Your task to perform on an android device: Open my contact list Image 0: 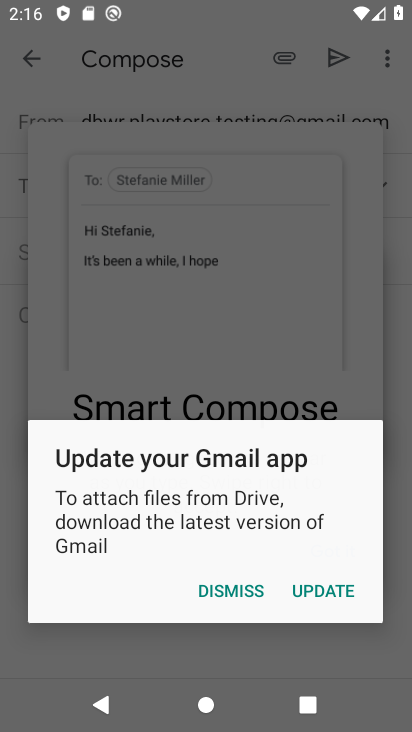
Step 0: click (358, 553)
Your task to perform on an android device: Open my contact list Image 1: 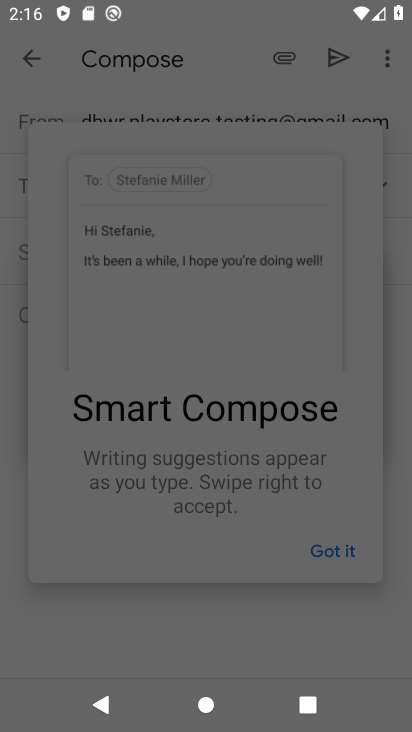
Step 1: press home button
Your task to perform on an android device: Open my contact list Image 2: 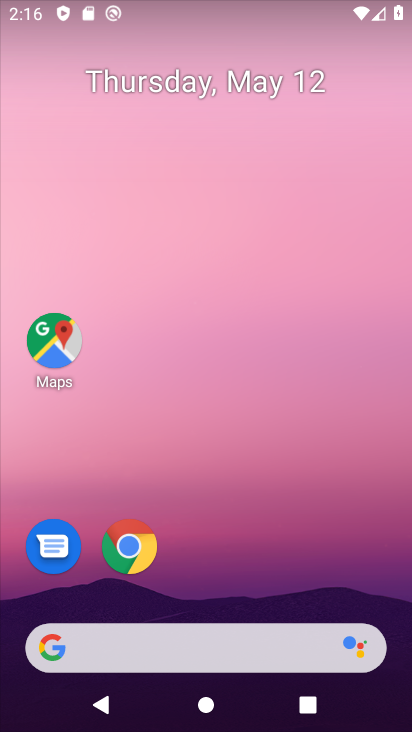
Step 2: drag from (220, 608) to (317, 93)
Your task to perform on an android device: Open my contact list Image 3: 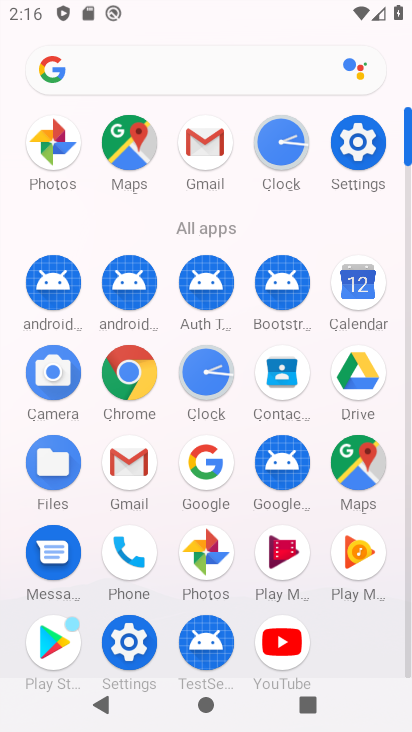
Step 3: click (283, 377)
Your task to perform on an android device: Open my contact list Image 4: 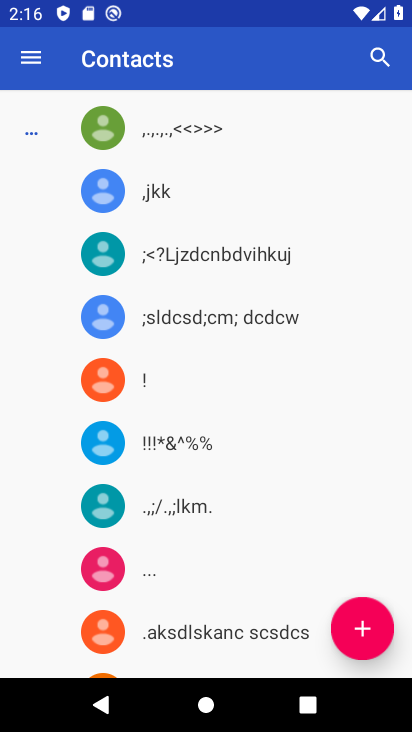
Step 4: task complete